Your task to perform on an android device: install app "Google Chat" Image 0: 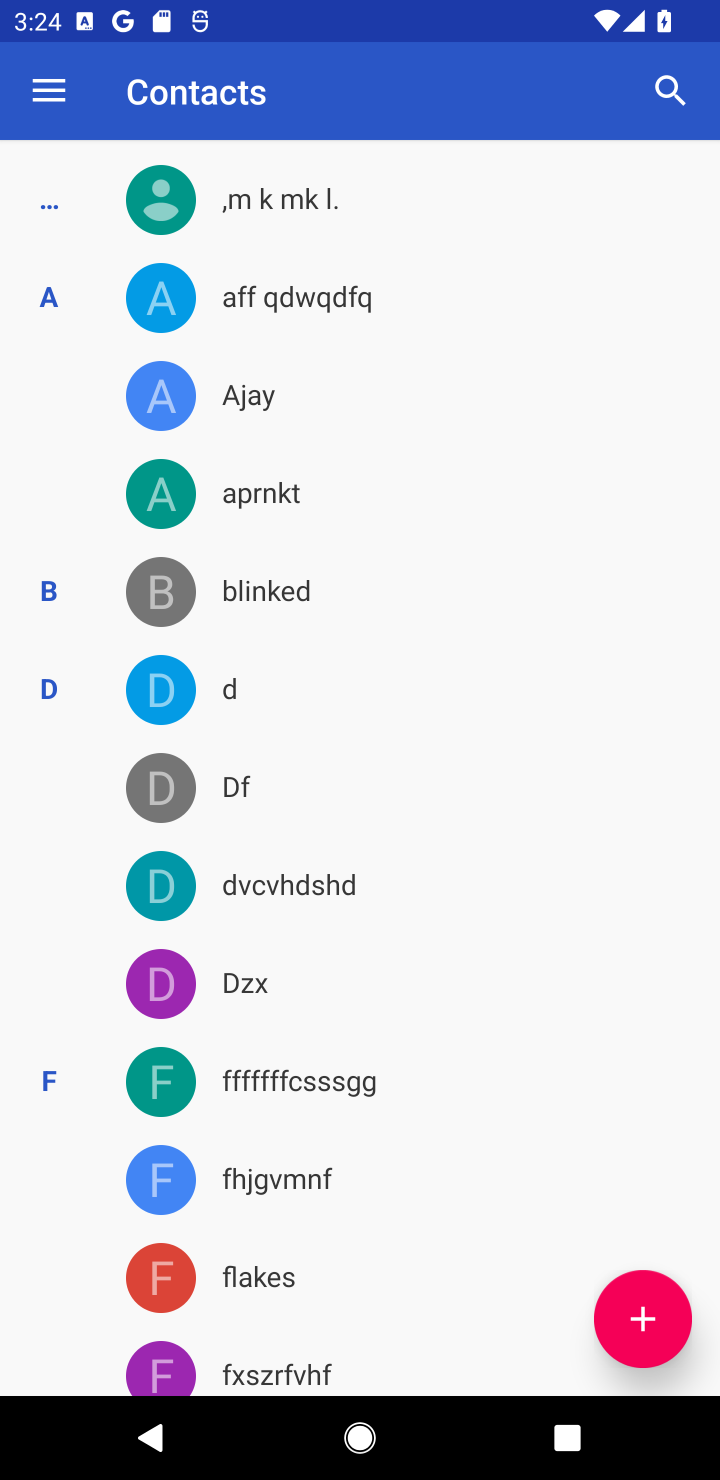
Step 0: press home button
Your task to perform on an android device: install app "Google Chat" Image 1: 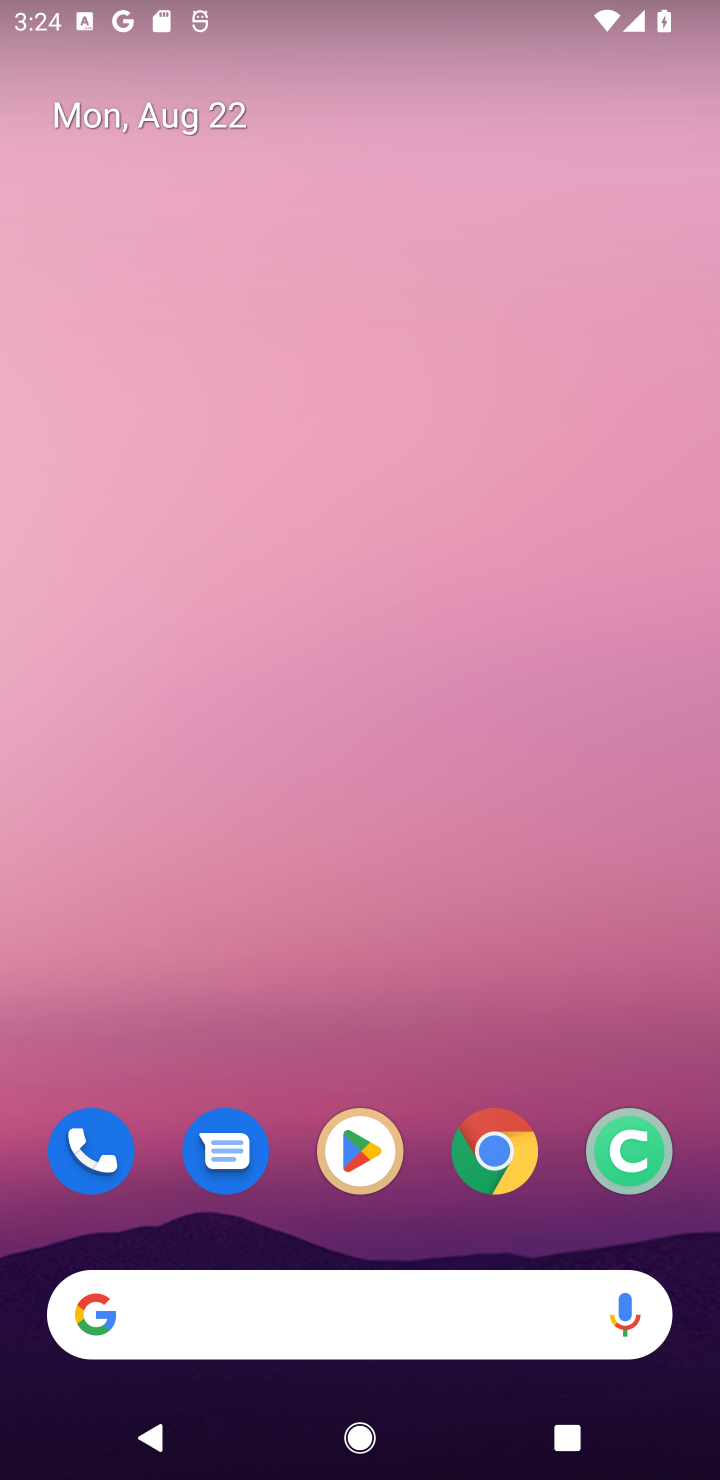
Step 1: click (353, 1146)
Your task to perform on an android device: install app "Google Chat" Image 2: 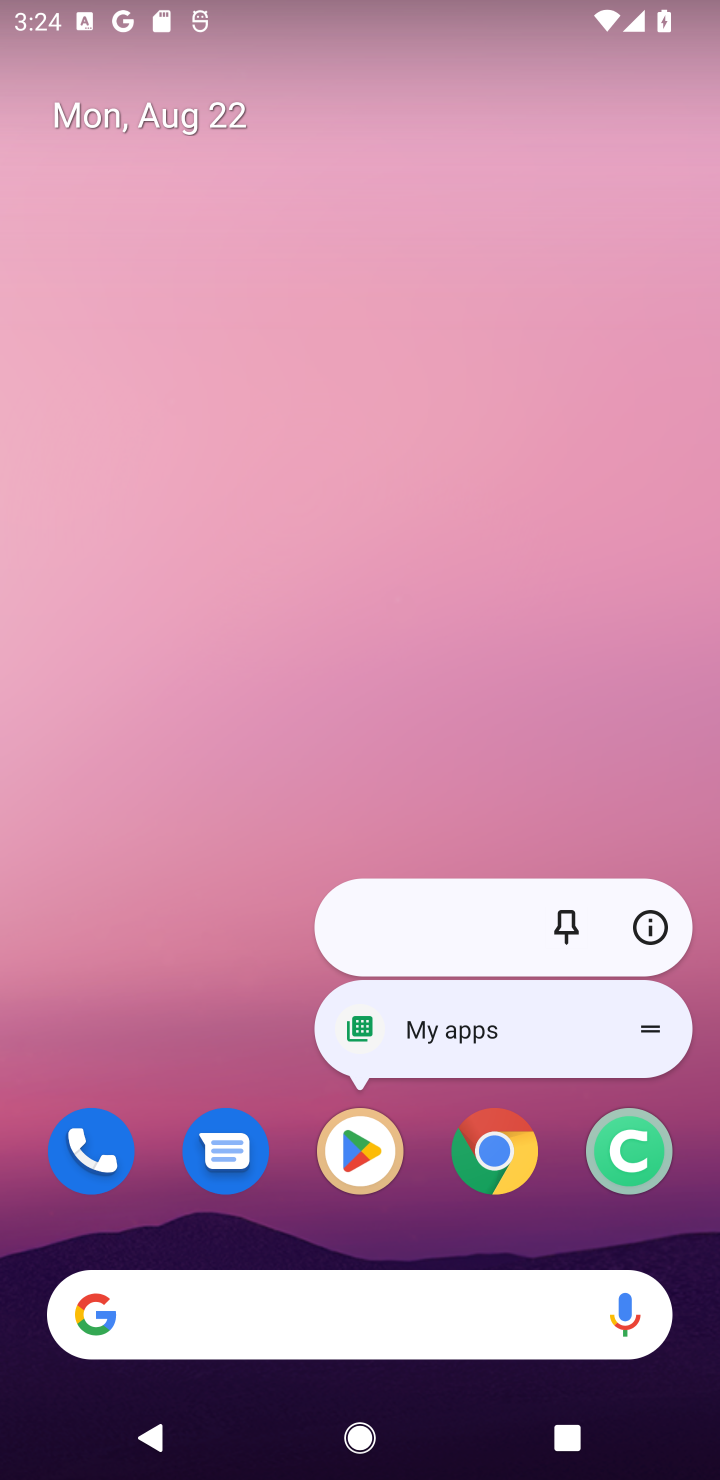
Step 2: click (353, 1159)
Your task to perform on an android device: install app "Google Chat" Image 3: 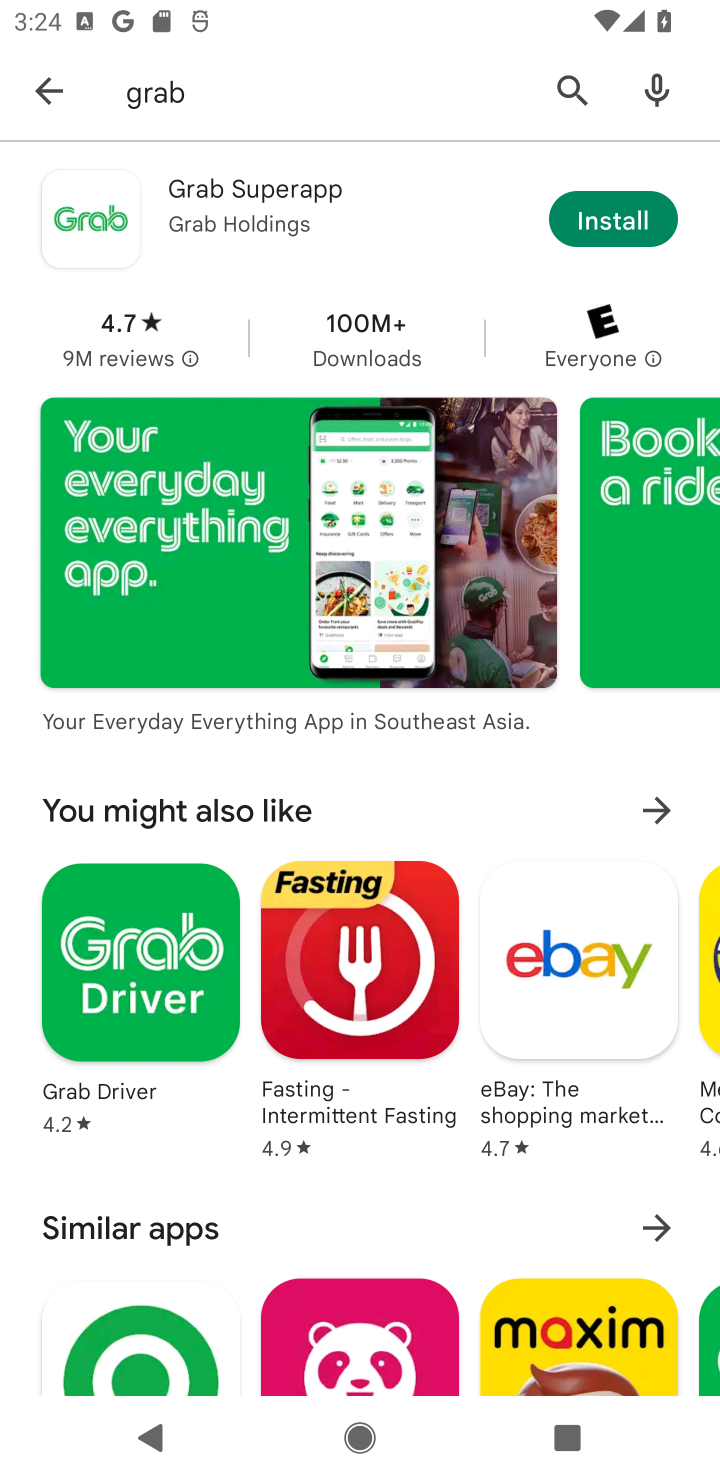
Step 3: click (564, 75)
Your task to perform on an android device: install app "Google Chat" Image 4: 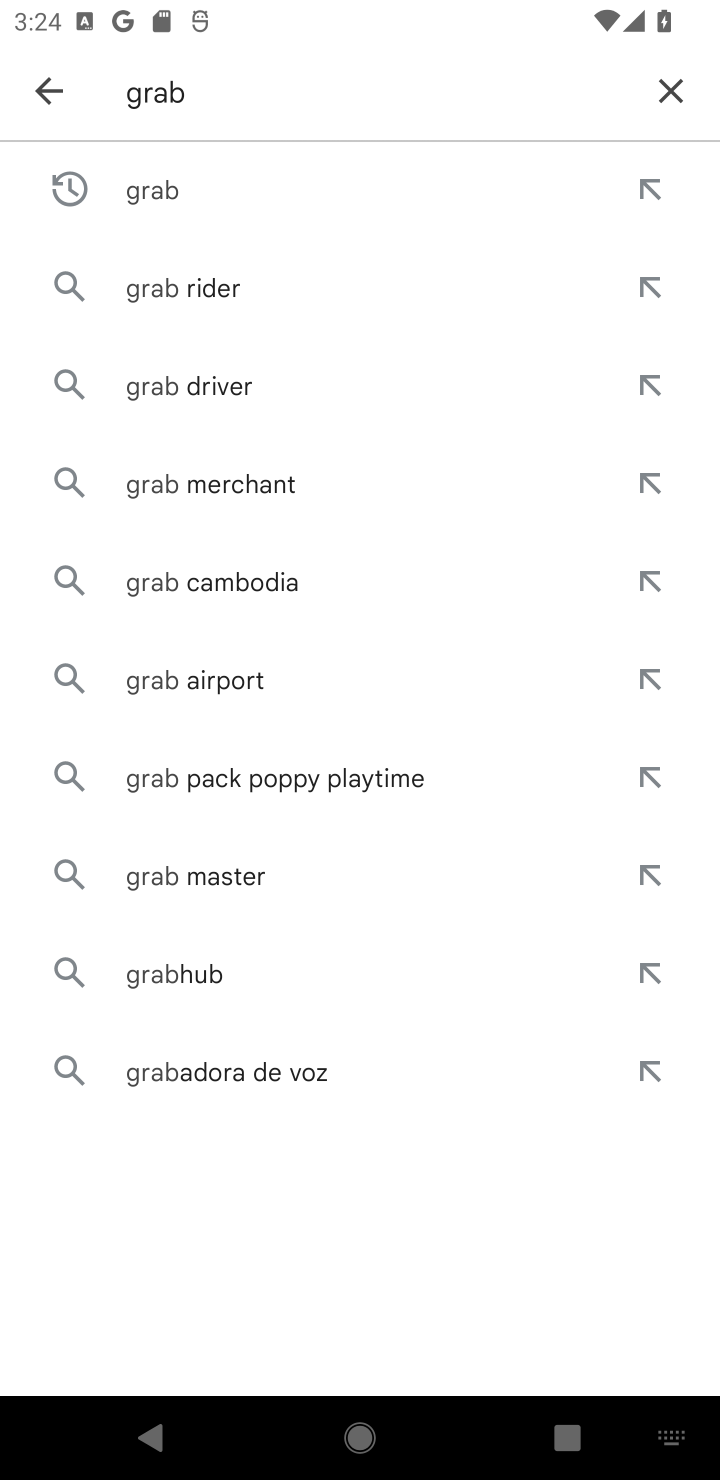
Step 4: click (667, 88)
Your task to perform on an android device: install app "Google Chat" Image 5: 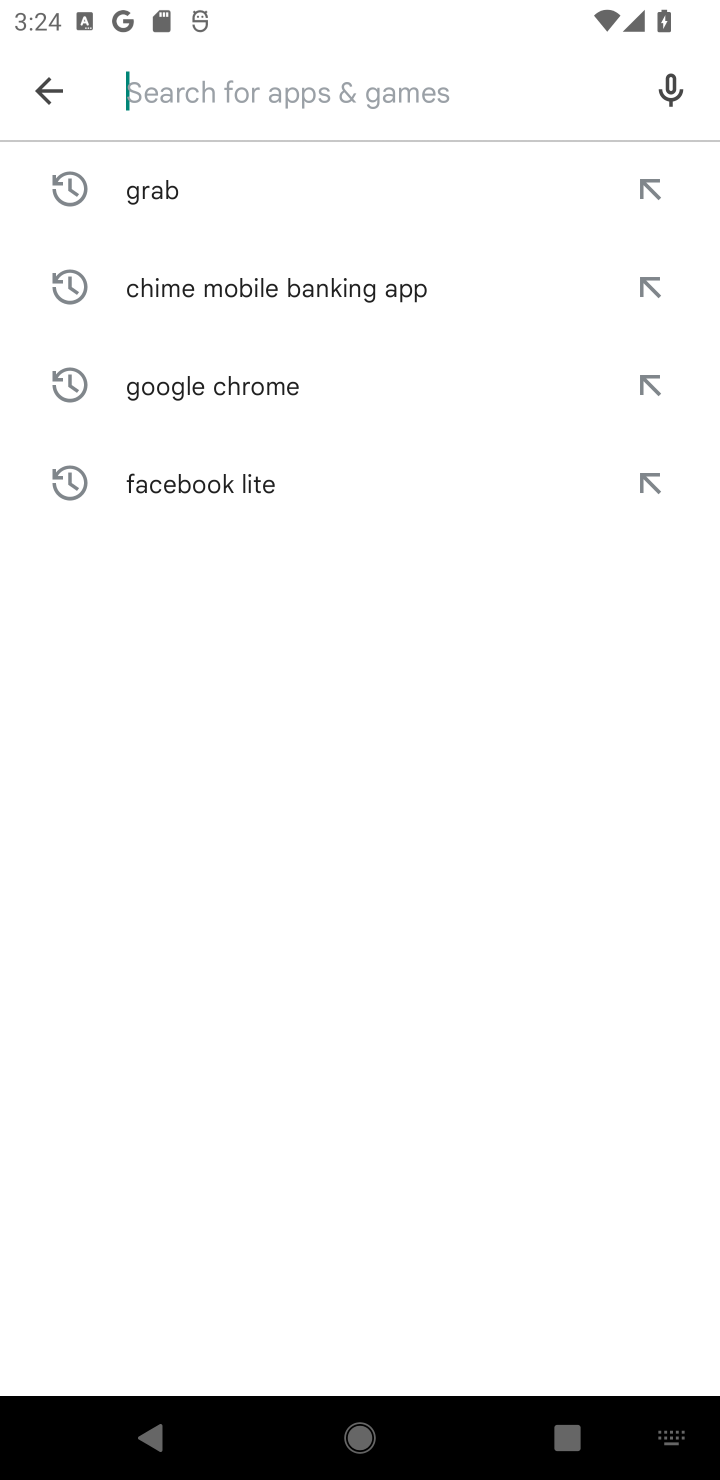
Step 5: type "Google Chat"
Your task to perform on an android device: install app "Google Chat" Image 6: 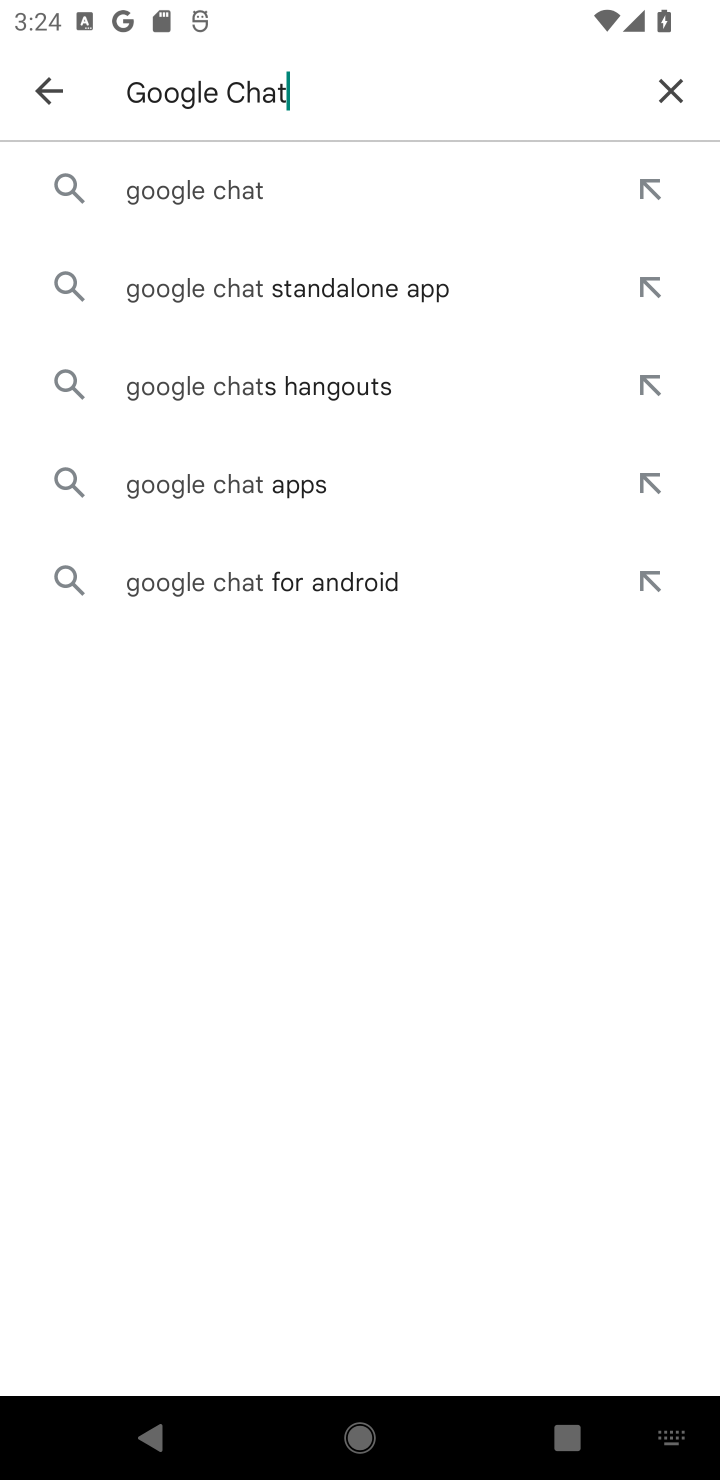
Step 6: click (244, 194)
Your task to perform on an android device: install app "Google Chat" Image 7: 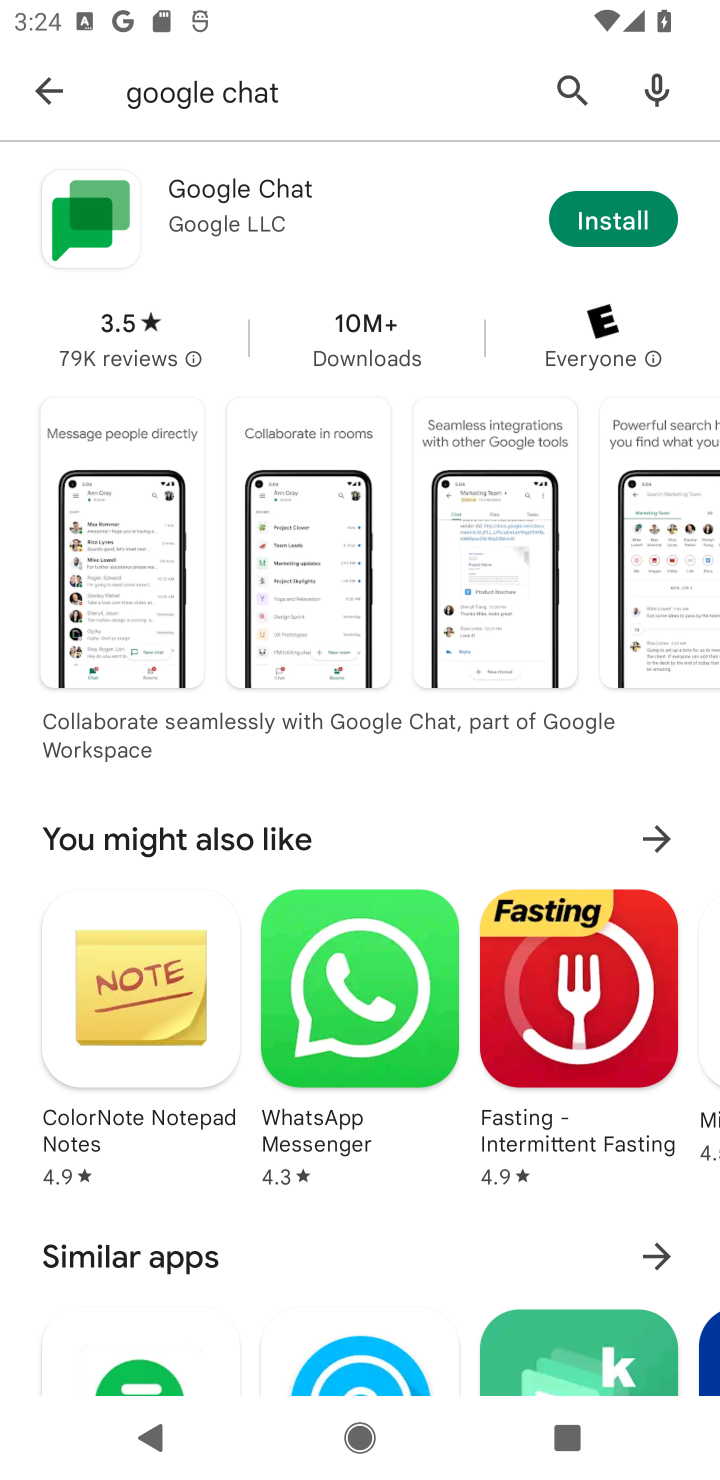
Step 7: click (612, 223)
Your task to perform on an android device: install app "Google Chat" Image 8: 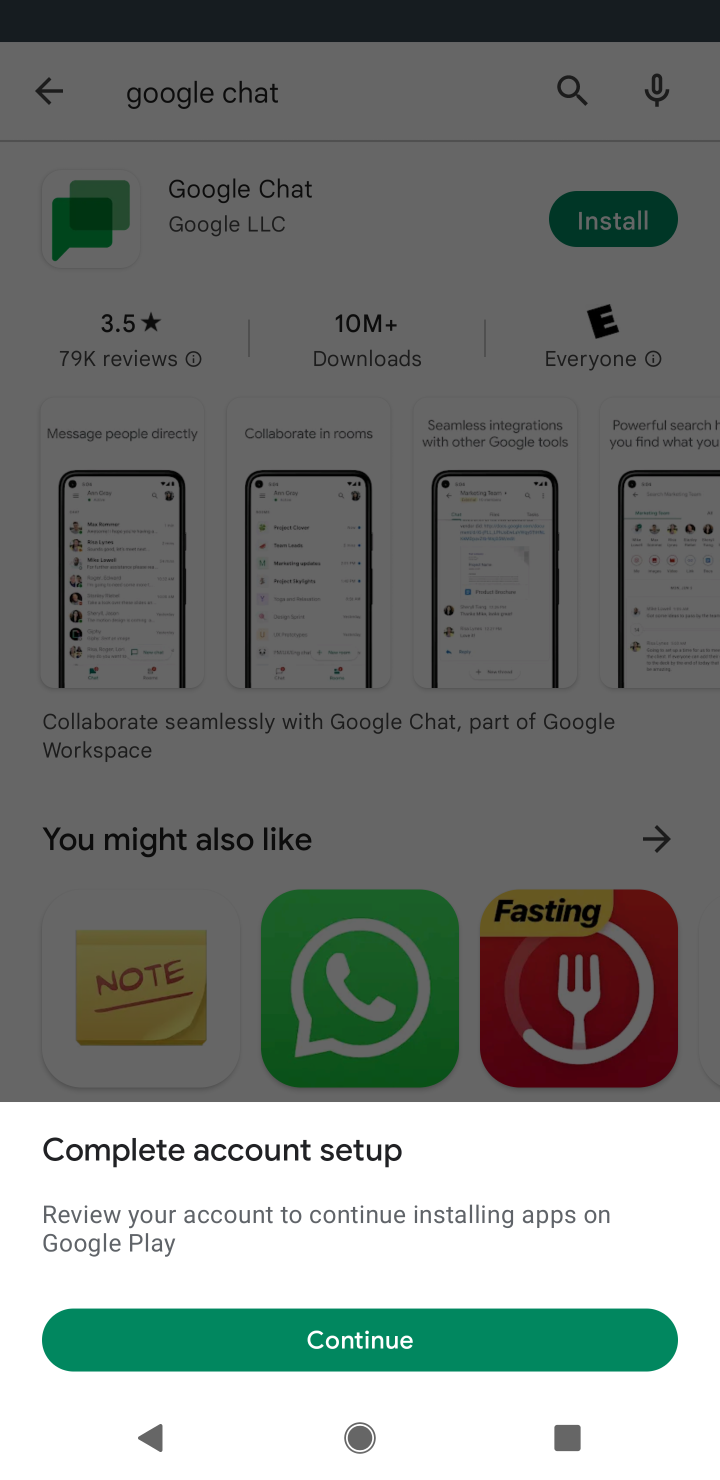
Step 8: click (393, 1340)
Your task to perform on an android device: install app "Google Chat" Image 9: 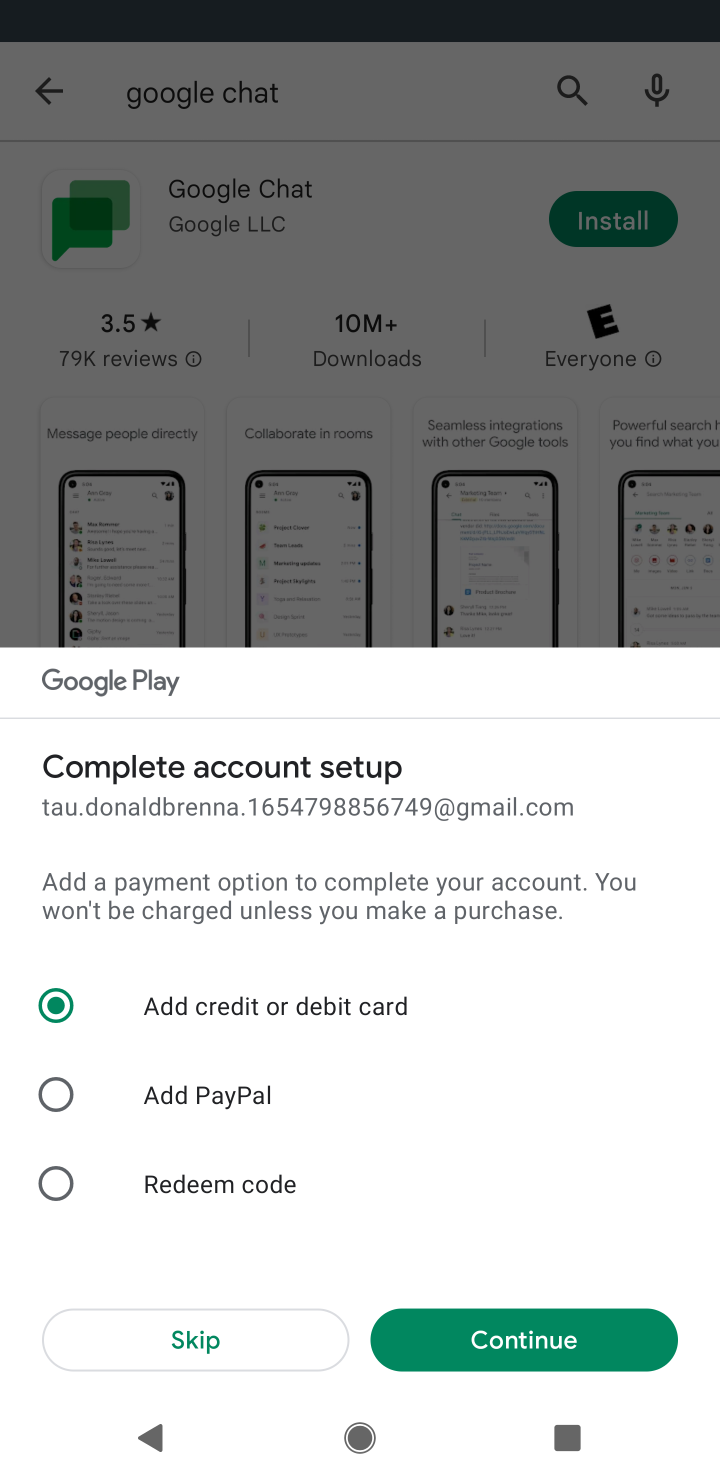
Step 9: click (232, 1331)
Your task to perform on an android device: install app "Google Chat" Image 10: 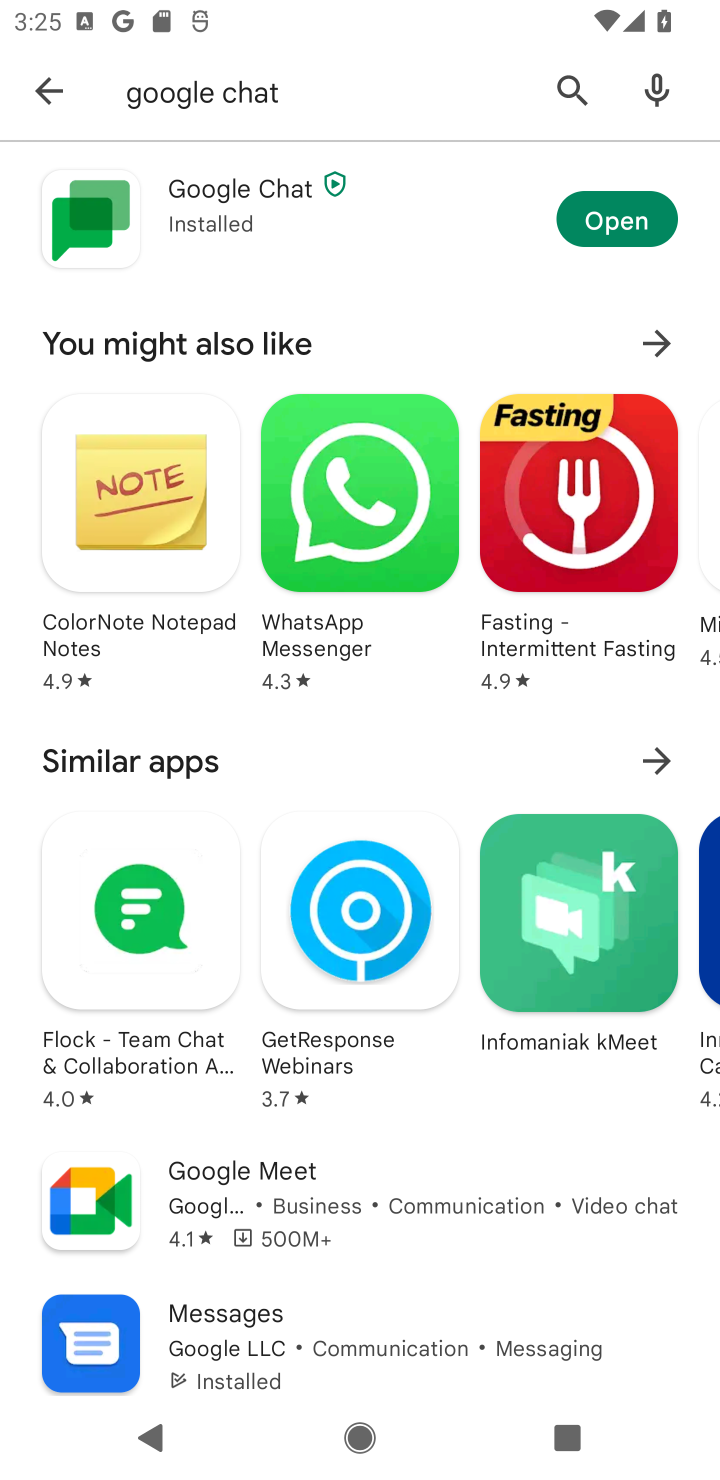
Step 10: task complete